Your task to perform on an android device: visit the assistant section in the google photos Image 0: 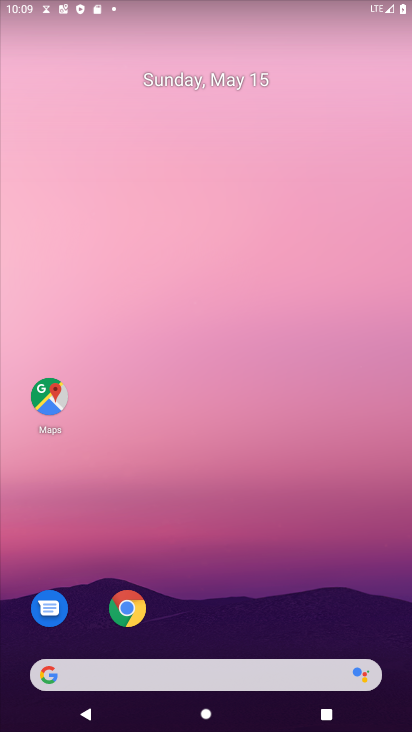
Step 0: drag from (244, 544) to (197, 3)
Your task to perform on an android device: visit the assistant section in the google photos Image 1: 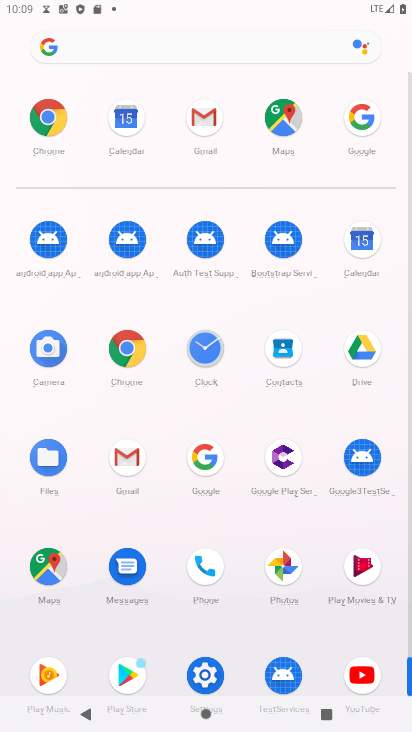
Step 1: click (285, 564)
Your task to perform on an android device: visit the assistant section in the google photos Image 2: 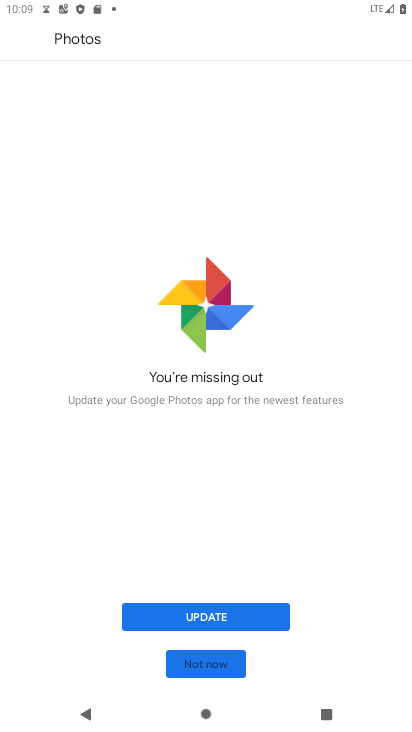
Step 2: click (198, 611)
Your task to perform on an android device: visit the assistant section in the google photos Image 3: 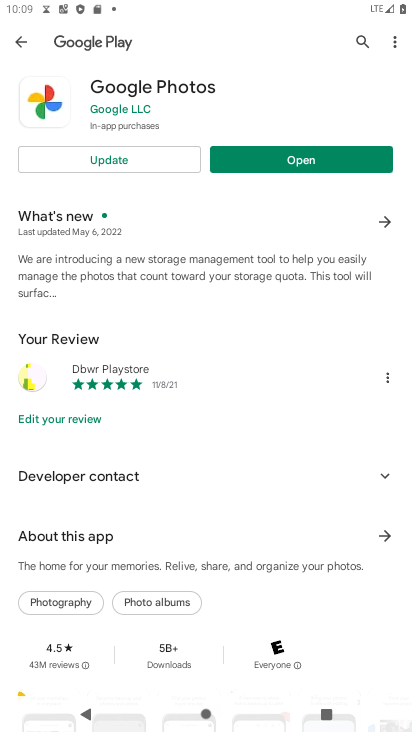
Step 3: click (108, 163)
Your task to perform on an android device: visit the assistant section in the google photos Image 4: 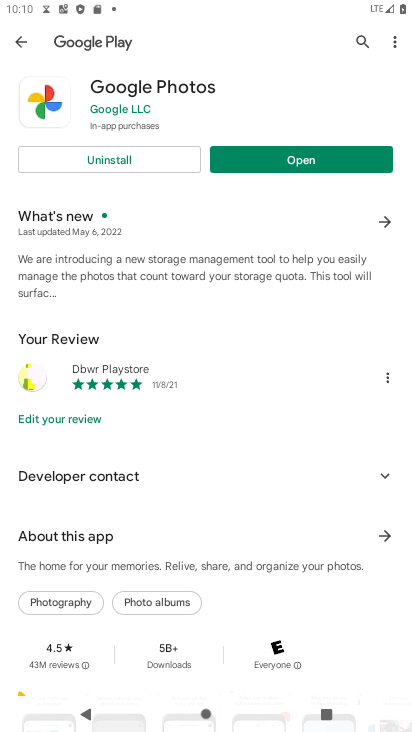
Step 4: click (255, 153)
Your task to perform on an android device: visit the assistant section in the google photos Image 5: 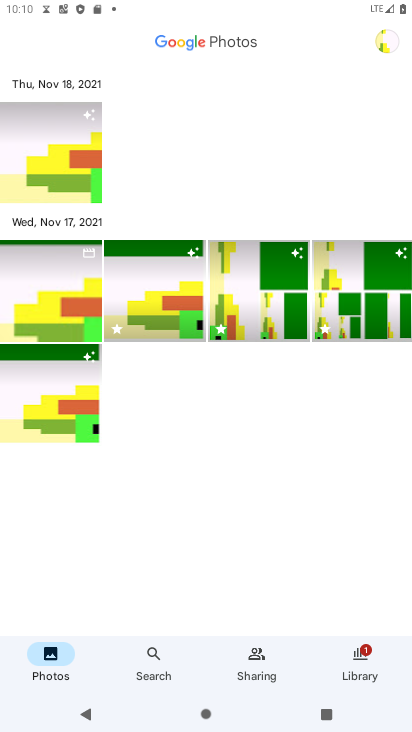
Step 5: task complete